Your task to perform on an android device: Open the clock Image 0: 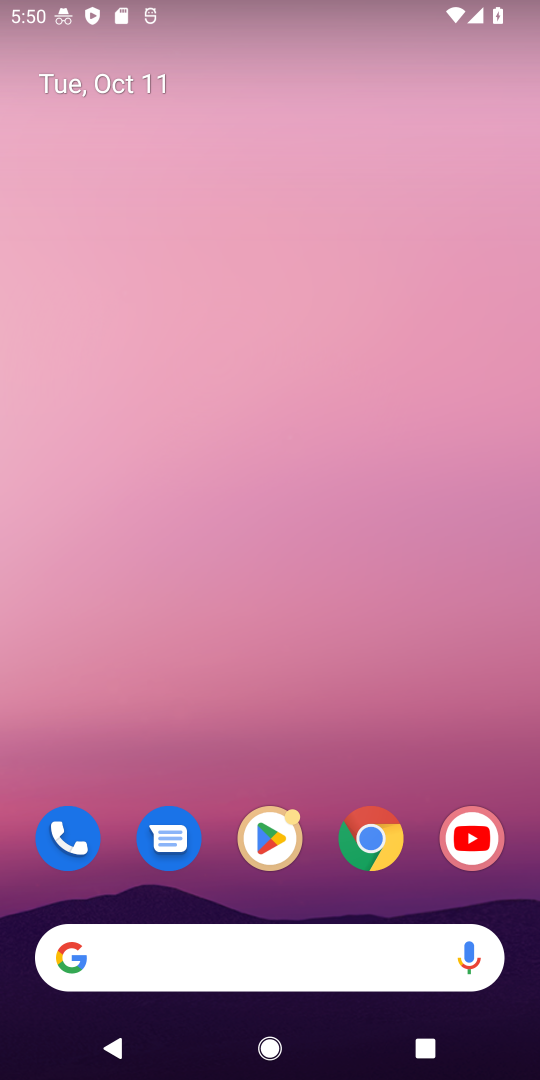
Step 0: drag from (373, 837) to (325, 228)
Your task to perform on an android device: Open the clock Image 1: 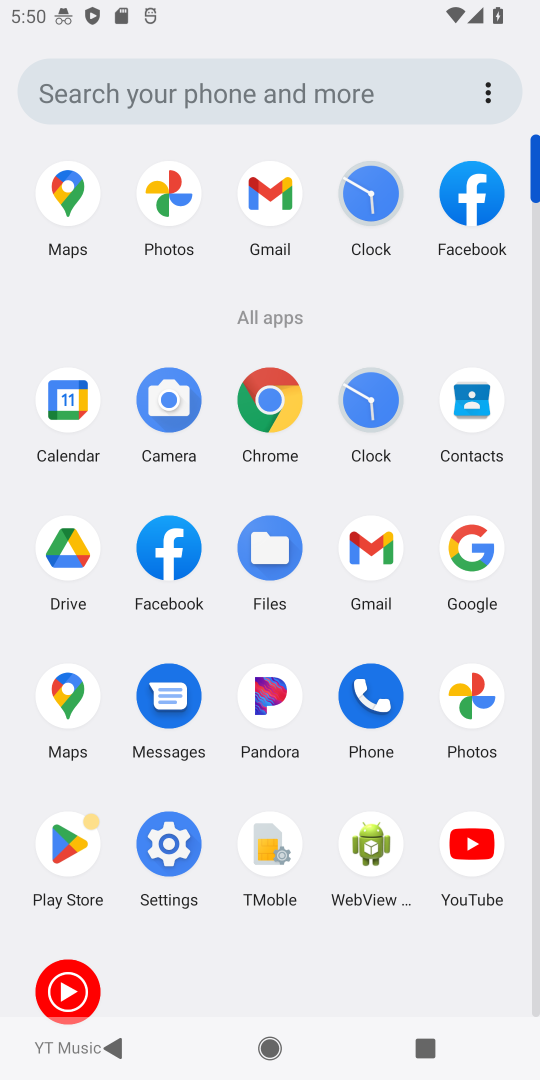
Step 1: click (370, 398)
Your task to perform on an android device: Open the clock Image 2: 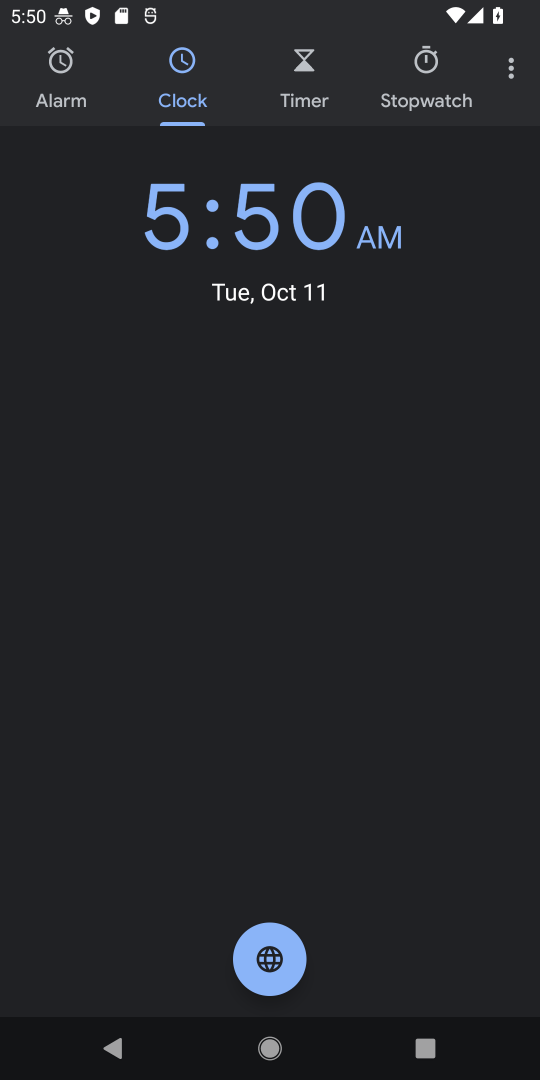
Step 2: task complete